Your task to perform on an android device: What's the weather going to be this weekend? Image 0: 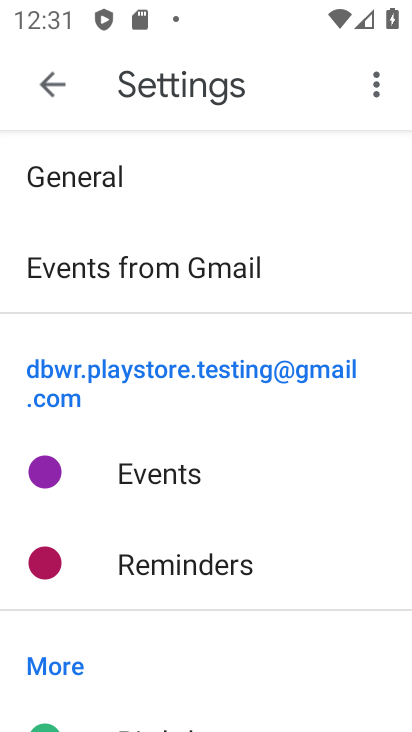
Step 0: press home button
Your task to perform on an android device: What's the weather going to be this weekend? Image 1: 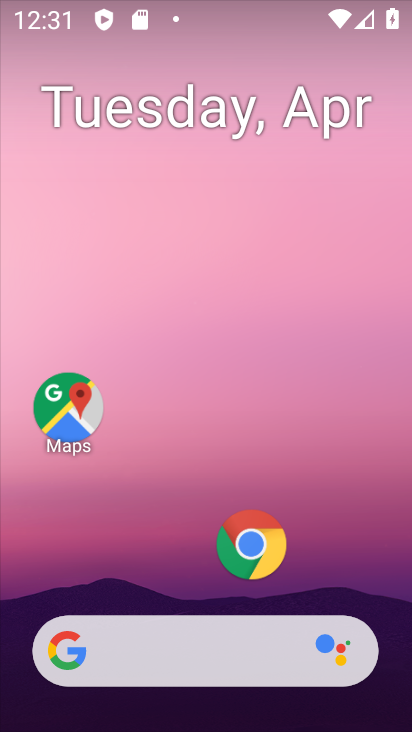
Step 1: drag from (188, 516) to (244, 113)
Your task to perform on an android device: What's the weather going to be this weekend? Image 2: 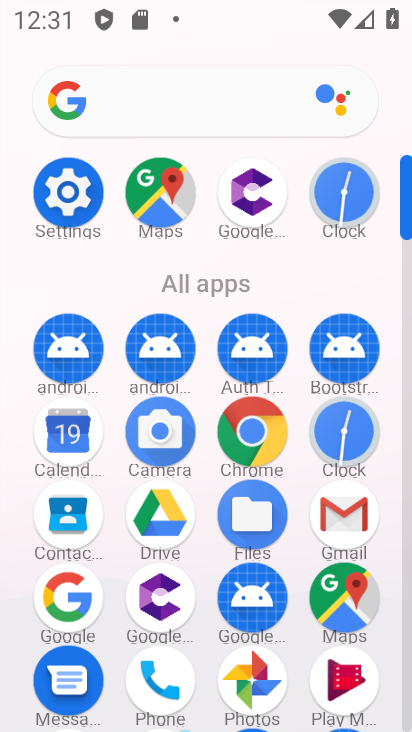
Step 2: click (250, 425)
Your task to perform on an android device: What's the weather going to be this weekend? Image 3: 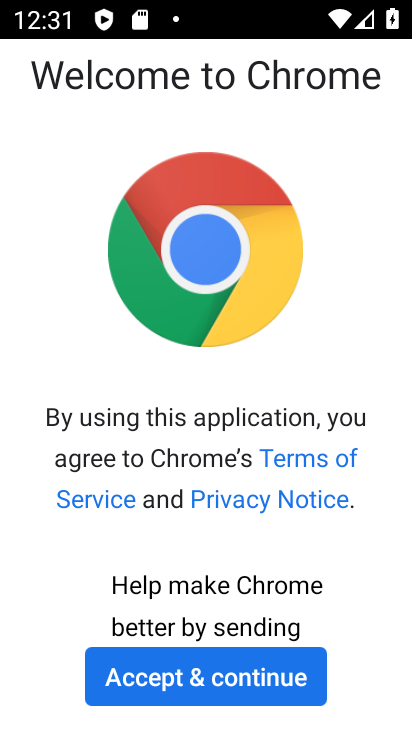
Step 3: click (217, 667)
Your task to perform on an android device: What's the weather going to be this weekend? Image 4: 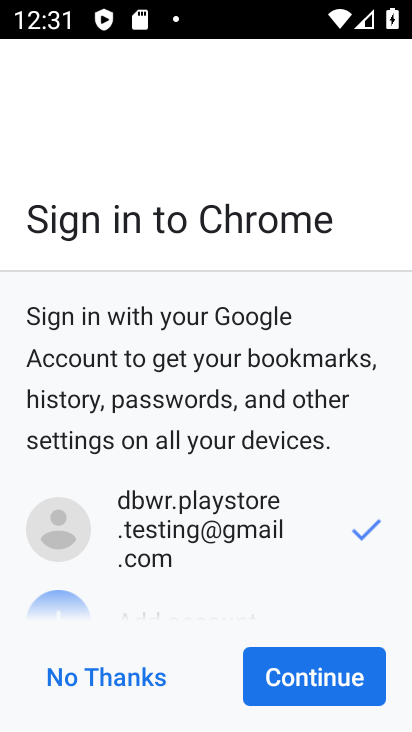
Step 4: click (282, 671)
Your task to perform on an android device: What's the weather going to be this weekend? Image 5: 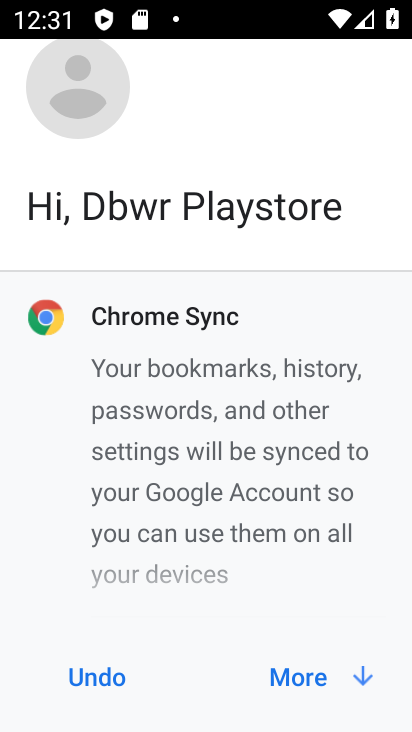
Step 5: click (282, 671)
Your task to perform on an android device: What's the weather going to be this weekend? Image 6: 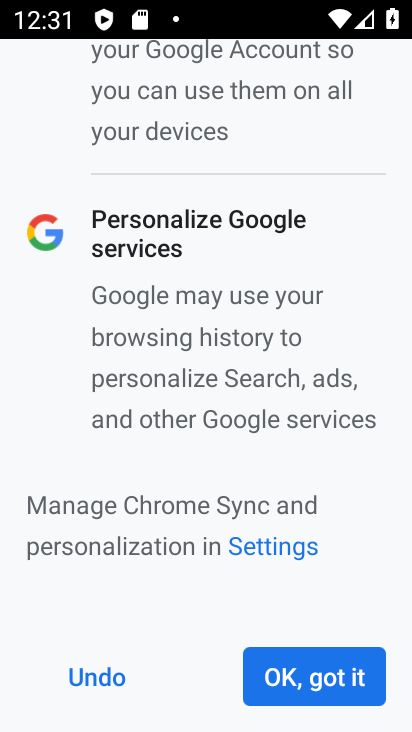
Step 6: click (282, 671)
Your task to perform on an android device: What's the weather going to be this weekend? Image 7: 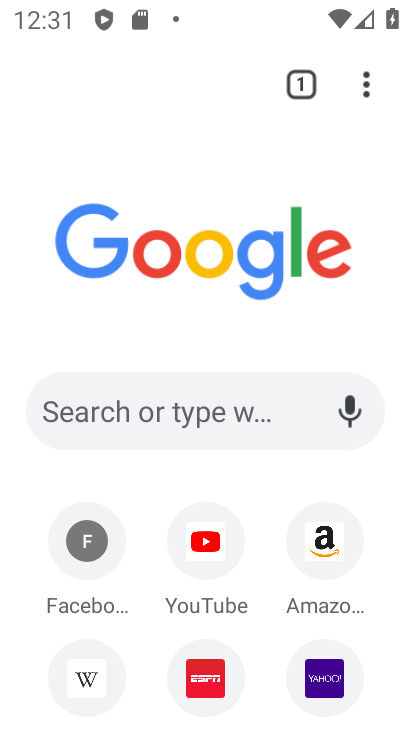
Step 7: click (368, 82)
Your task to perform on an android device: What's the weather going to be this weekend? Image 8: 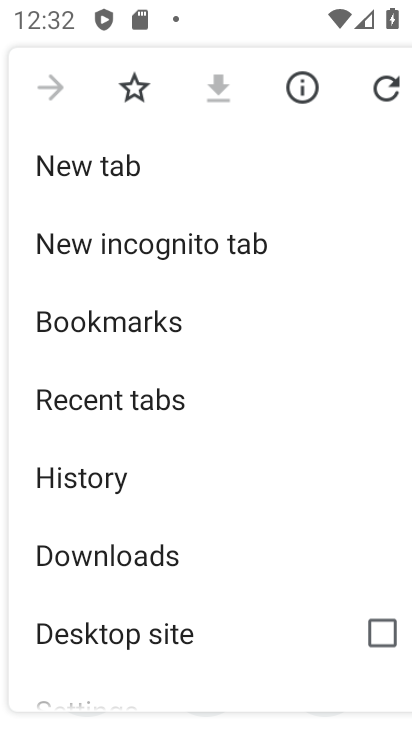
Step 8: click (248, 162)
Your task to perform on an android device: What's the weather going to be this weekend? Image 9: 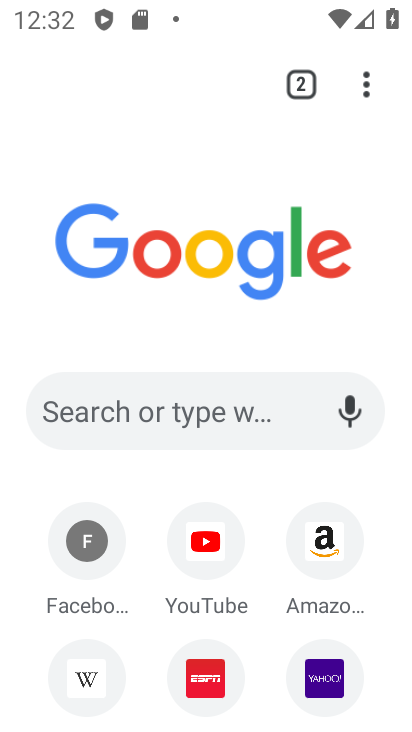
Step 9: click (199, 399)
Your task to perform on an android device: What's the weather going to be this weekend? Image 10: 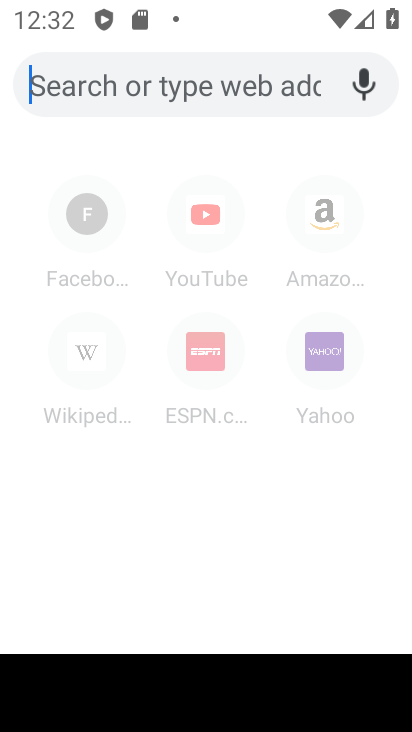
Step 10: type "What's the weather going to be this weekend?"
Your task to perform on an android device: What's the weather going to be this weekend? Image 11: 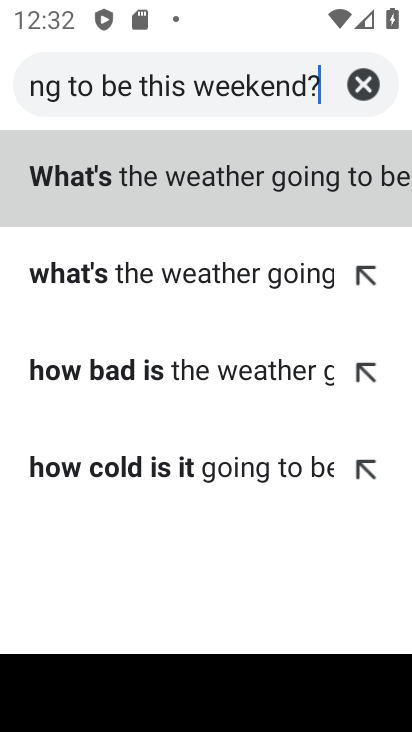
Step 11: click (277, 256)
Your task to perform on an android device: What's the weather going to be this weekend? Image 12: 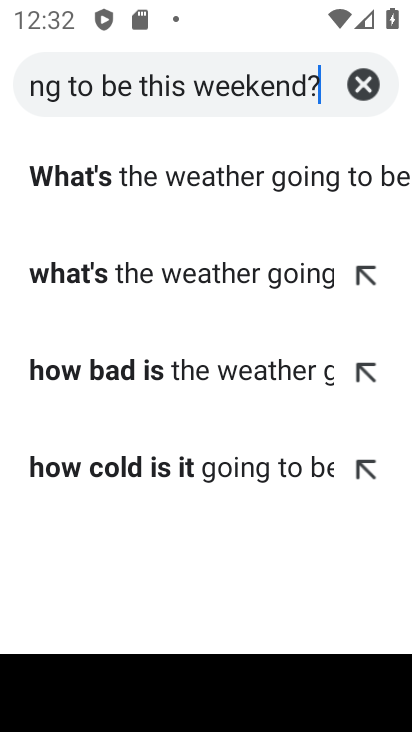
Step 12: click (231, 172)
Your task to perform on an android device: What's the weather going to be this weekend? Image 13: 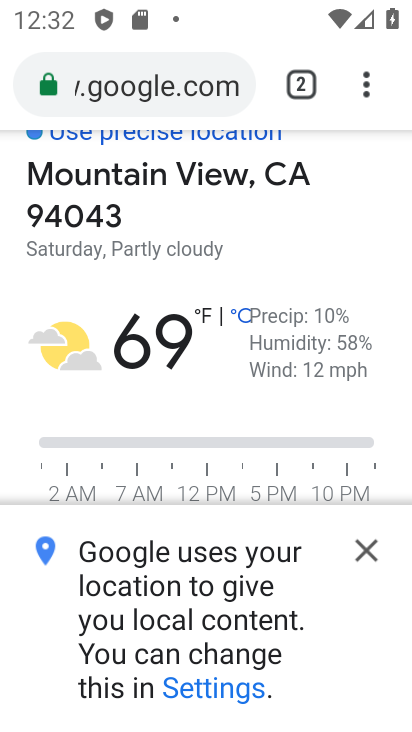
Step 13: click (370, 541)
Your task to perform on an android device: What's the weather going to be this weekend? Image 14: 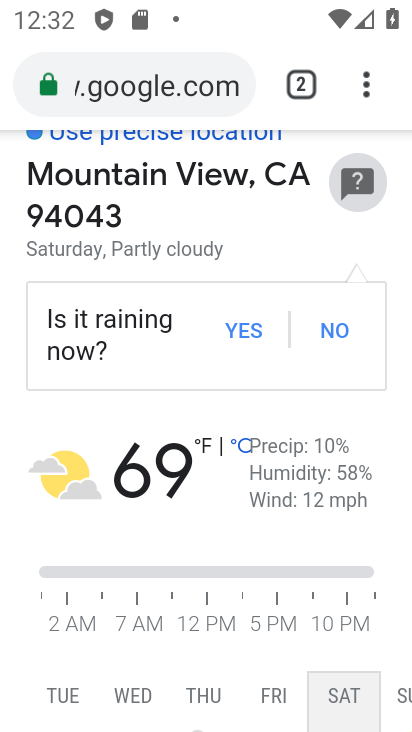
Step 14: task complete